Your task to perform on an android device: Toggle the flashlight Image 0: 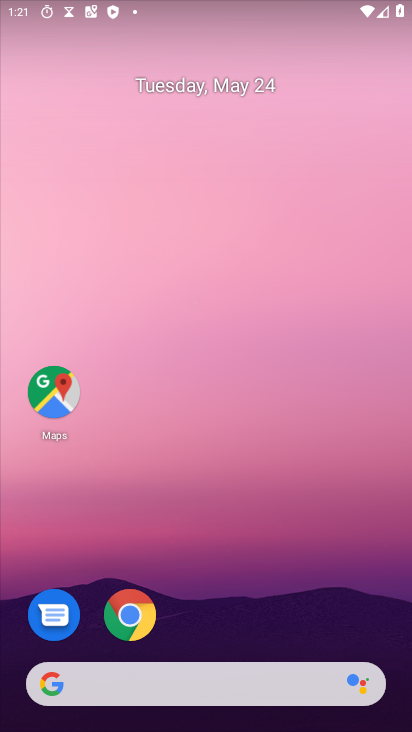
Step 0: drag from (254, 636) to (290, 164)
Your task to perform on an android device: Toggle the flashlight Image 1: 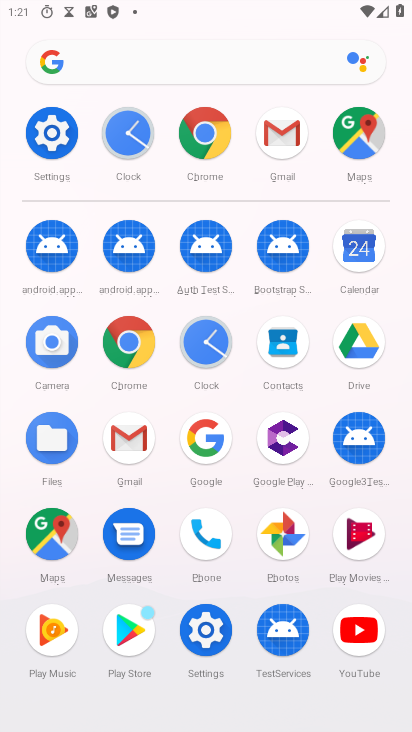
Step 1: click (56, 127)
Your task to perform on an android device: Toggle the flashlight Image 2: 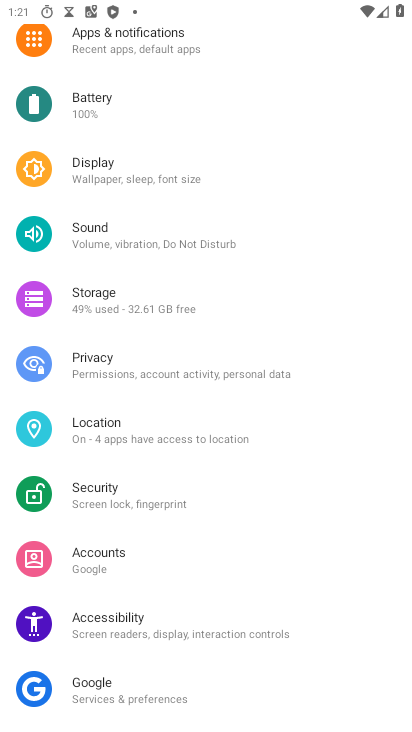
Step 2: drag from (174, 129) to (154, 574)
Your task to perform on an android device: Toggle the flashlight Image 3: 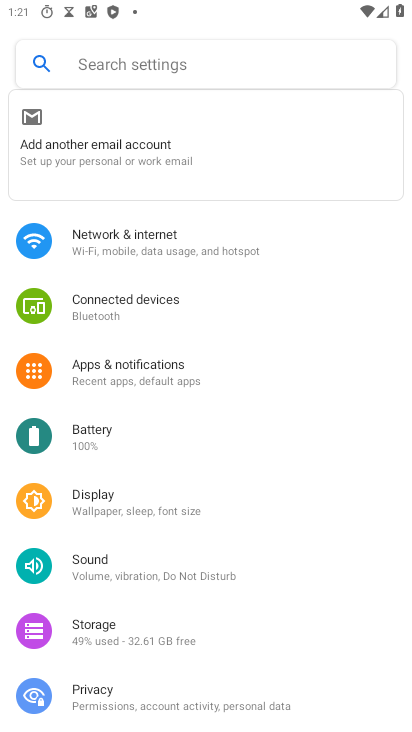
Step 3: click (128, 62)
Your task to perform on an android device: Toggle the flashlight Image 4: 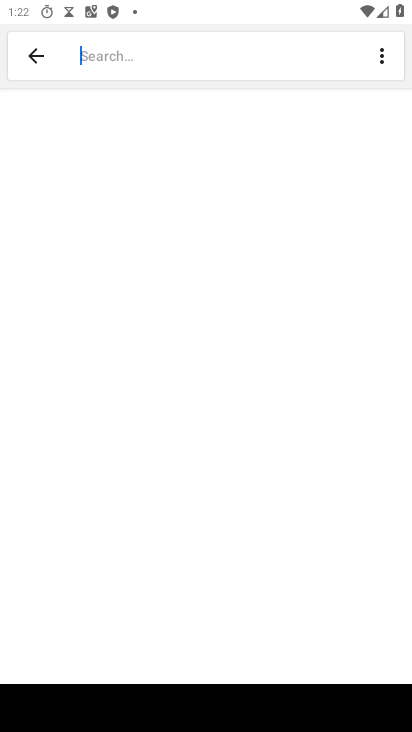
Step 4: type "flashlight"
Your task to perform on an android device: Toggle the flashlight Image 5: 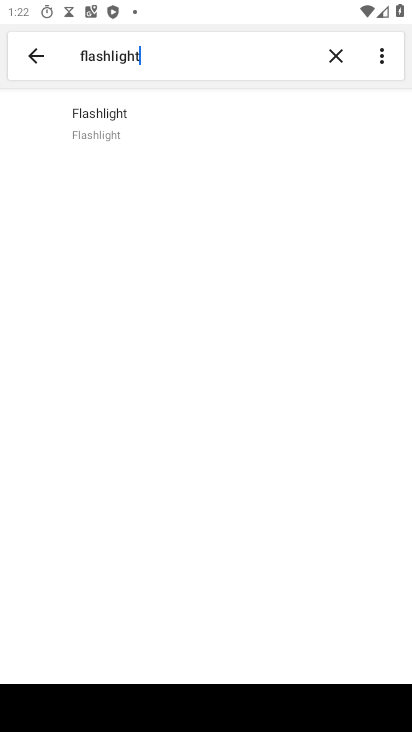
Step 5: click (142, 129)
Your task to perform on an android device: Toggle the flashlight Image 6: 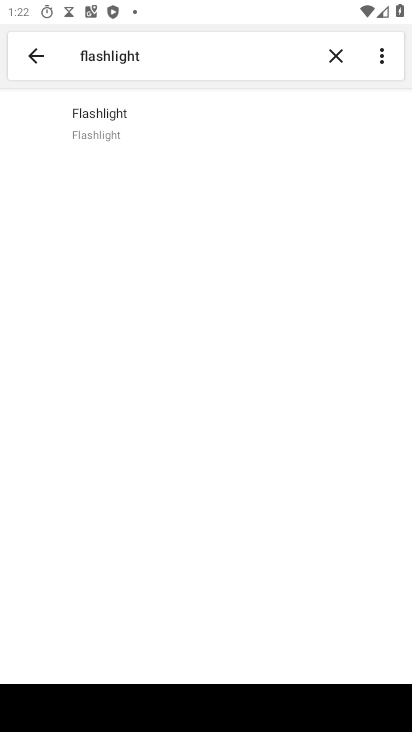
Step 6: click (138, 126)
Your task to perform on an android device: Toggle the flashlight Image 7: 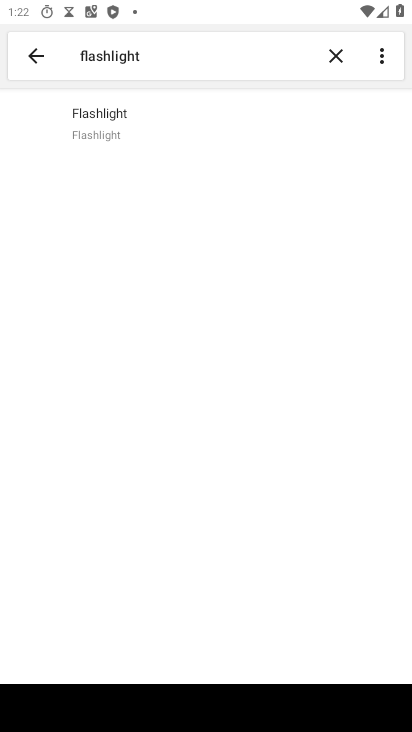
Step 7: task complete